Your task to perform on an android device: add a contact in the contacts app Image 0: 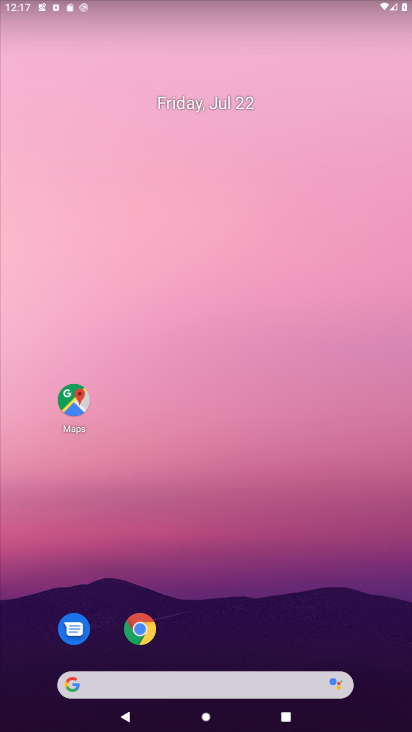
Step 0: drag from (190, 488) to (235, 28)
Your task to perform on an android device: add a contact in the contacts app Image 1: 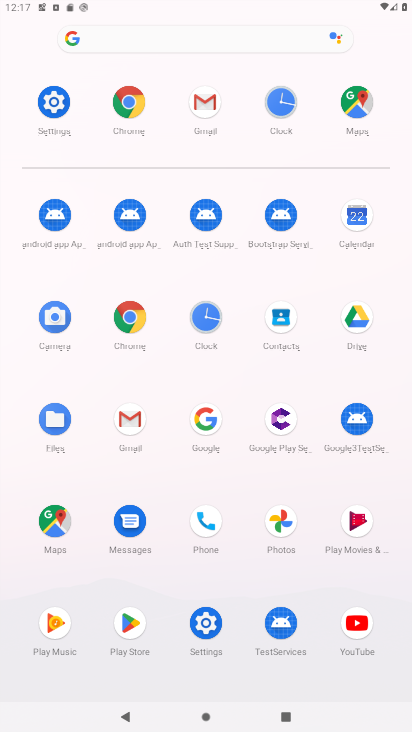
Step 1: click (284, 329)
Your task to perform on an android device: add a contact in the contacts app Image 2: 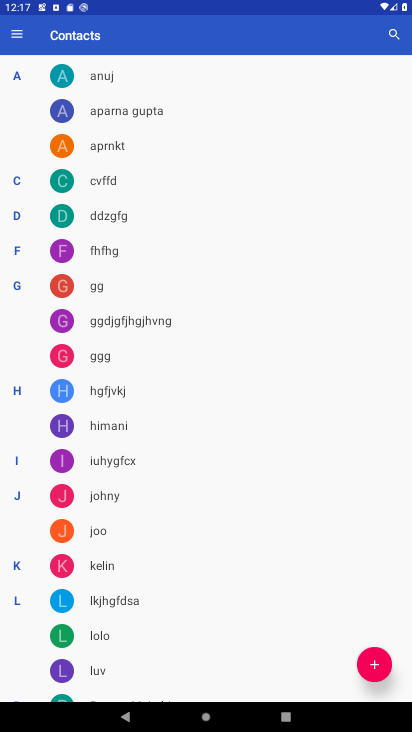
Step 2: click (371, 666)
Your task to perform on an android device: add a contact in the contacts app Image 3: 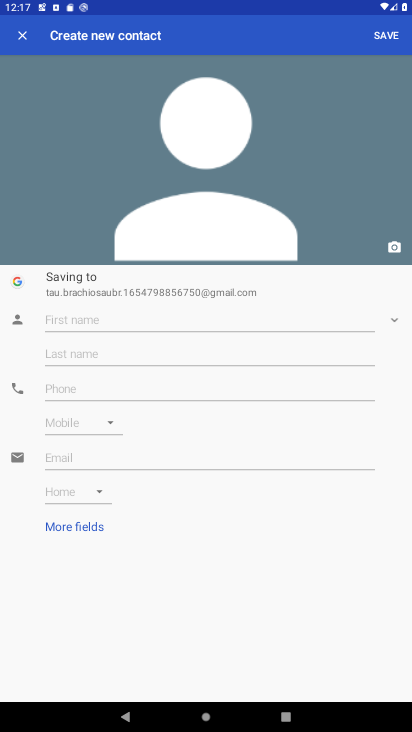
Step 3: click (170, 317)
Your task to perform on an android device: add a contact in the contacts app Image 4: 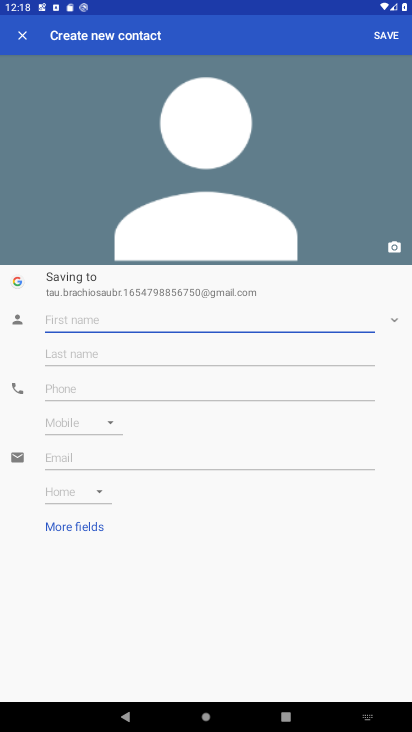
Step 4: type "gjvbvgvb"
Your task to perform on an android device: add a contact in the contacts app Image 5: 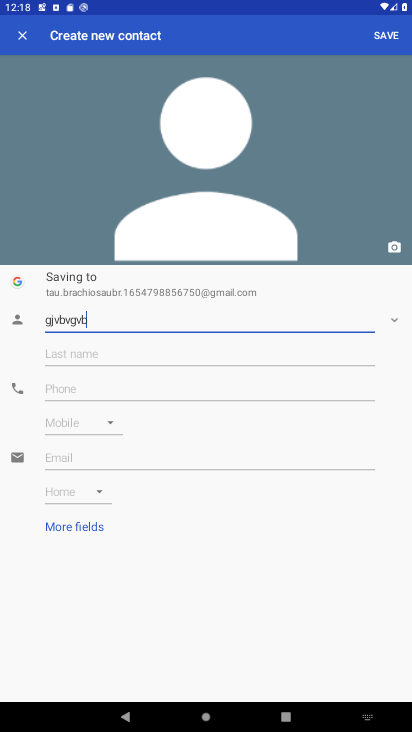
Step 5: type ""
Your task to perform on an android device: add a contact in the contacts app Image 6: 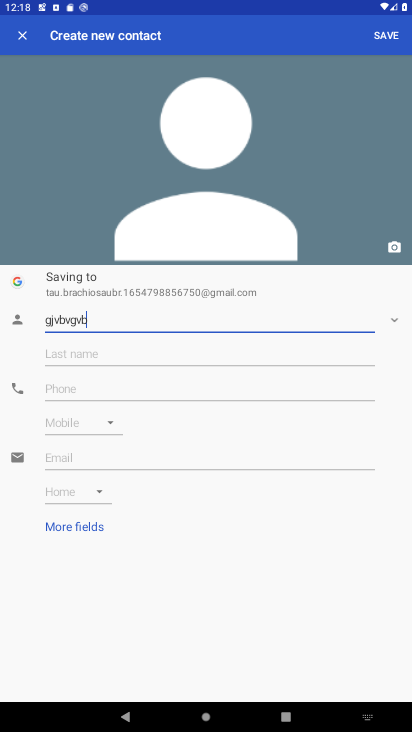
Step 6: click (390, 27)
Your task to perform on an android device: add a contact in the contacts app Image 7: 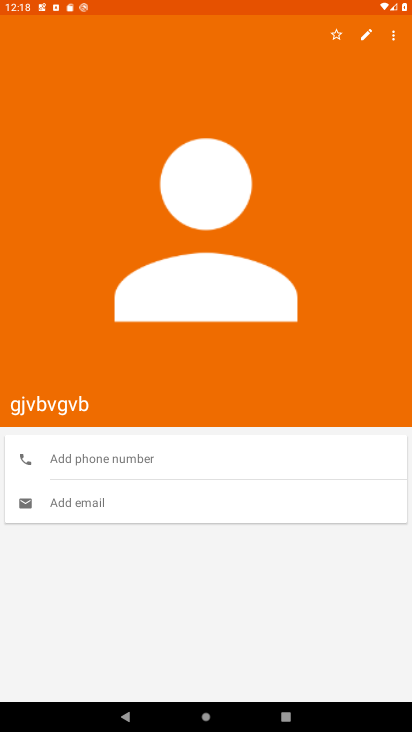
Step 7: task complete